Your task to perform on an android device: Open Google Chrome Image 0: 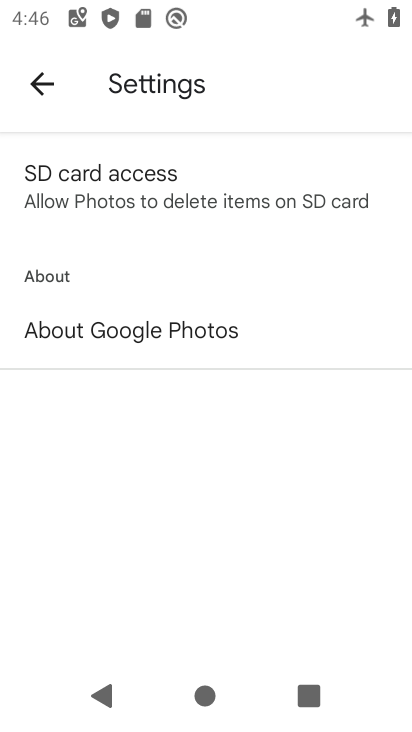
Step 0: press home button
Your task to perform on an android device: Open Google Chrome Image 1: 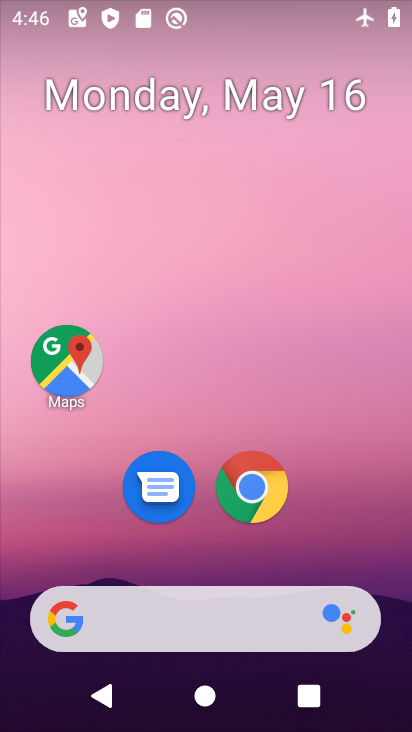
Step 1: click (253, 488)
Your task to perform on an android device: Open Google Chrome Image 2: 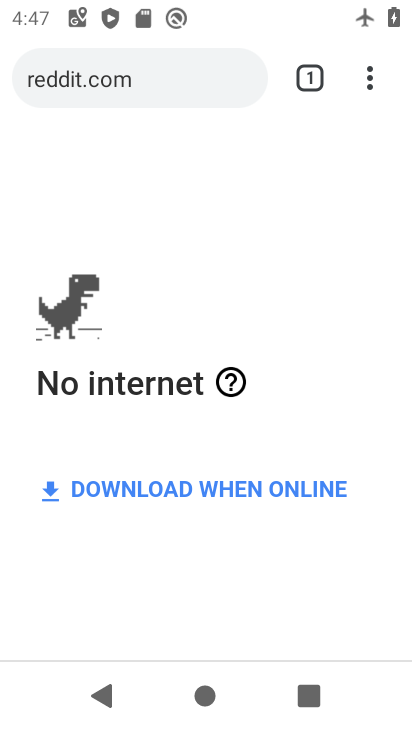
Step 2: task complete